Your task to perform on an android device: Open the web browser Image 0: 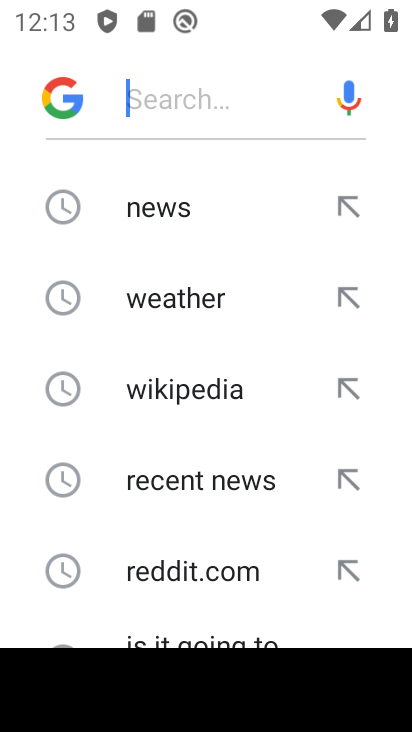
Step 0: press back button
Your task to perform on an android device: Open the web browser Image 1: 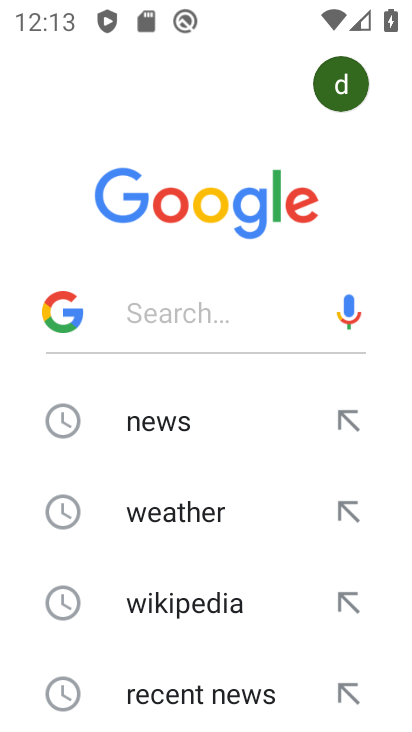
Step 1: press back button
Your task to perform on an android device: Open the web browser Image 2: 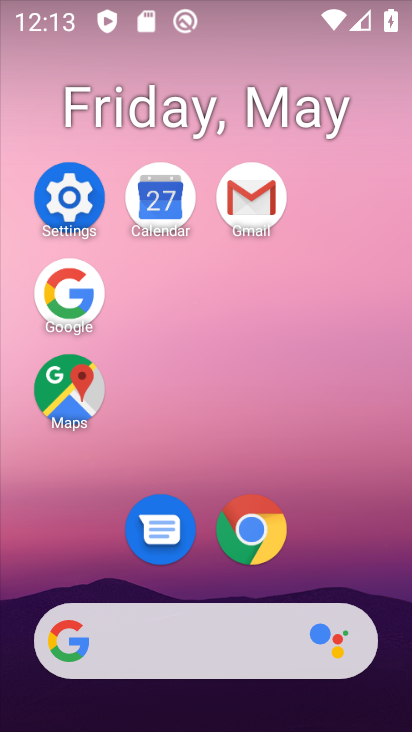
Step 2: click (250, 536)
Your task to perform on an android device: Open the web browser Image 3: 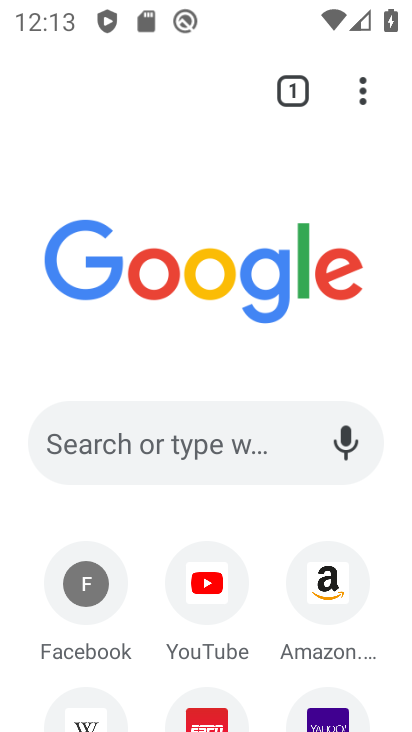
Step 3: task complete